Your task to perform on an android device: add a contact Image 0: 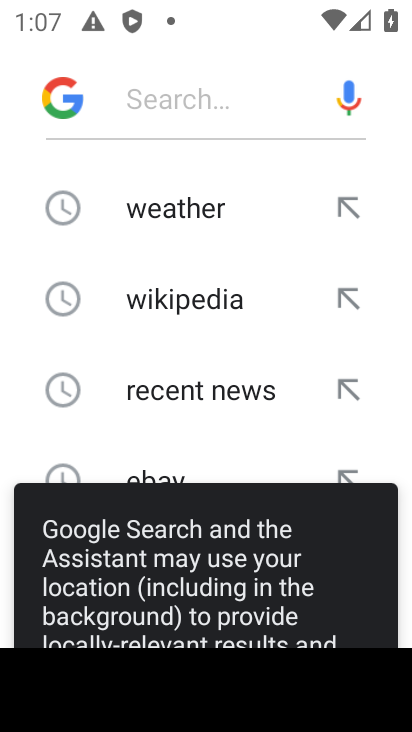
Step 0: press home button
Your task to perform on an android device: add a contact Image 1: 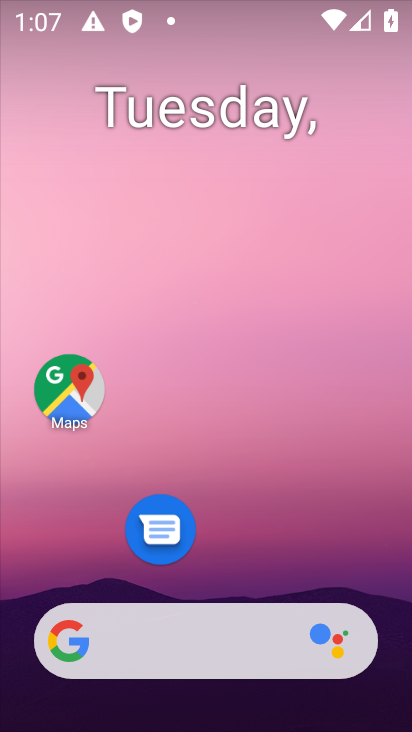
Step 1: drag from (247, 597) to (247, 82)
Your task to perform on an android device: add a contact Image 2: 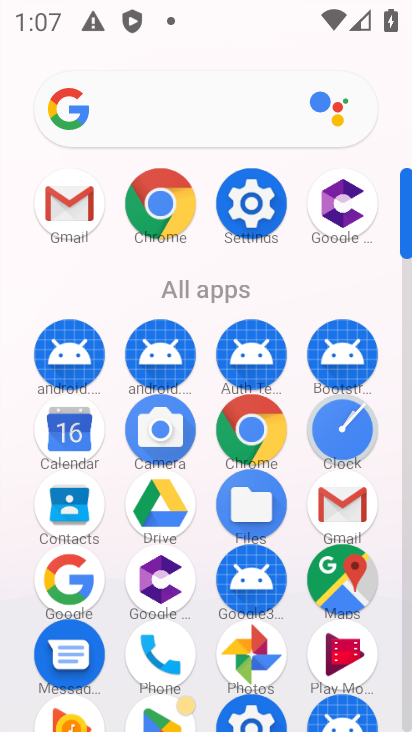
Step 2: click (259, 164)
Your task to perform on an android device: add a contact Image 3: 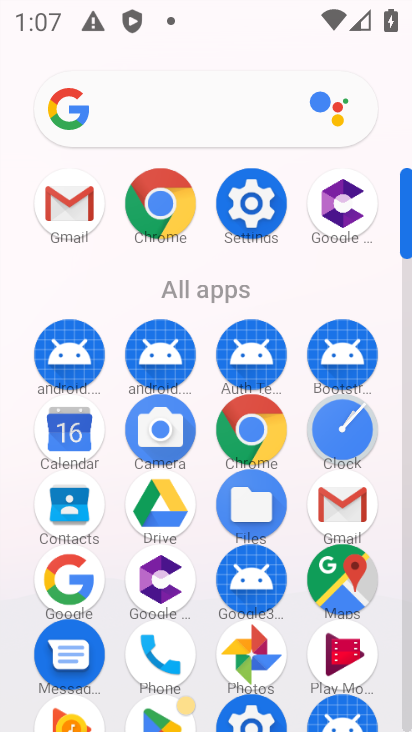
Step 3: click (220, 208)
Your task to perform on an android device: add a contact Image 4: 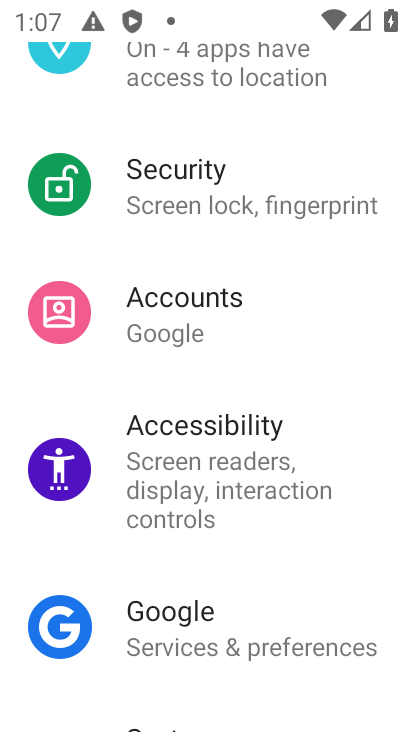
Step 4: press home button
Your task to perform on an android device: add a contact Image 5: 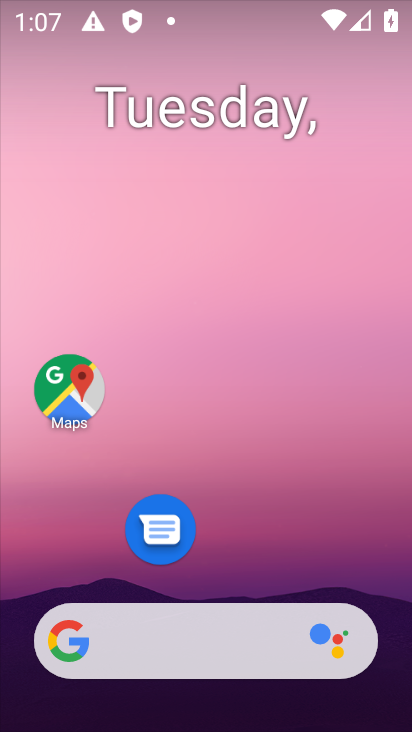
Step 5: drag from (267, 563) to (296, 142)
Your task to perform on an android device: add a contact Image 6: 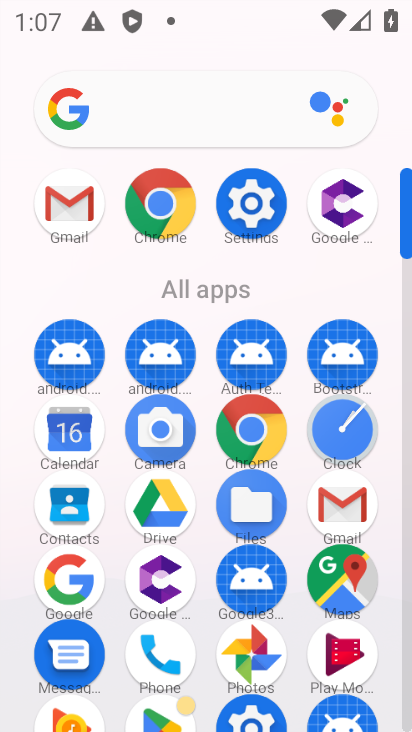
Step 6: click (88, 515)
Your task to perform on an android device: add a contact Image 7: 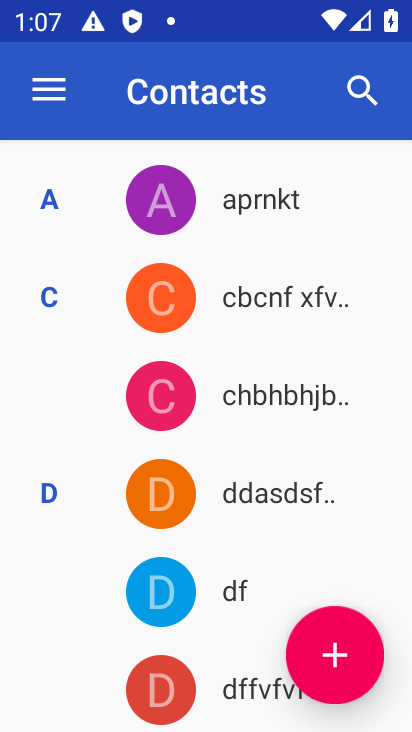
Step 7: click (333, 686)
Your task to perform on an android device: add a contact Image 8: 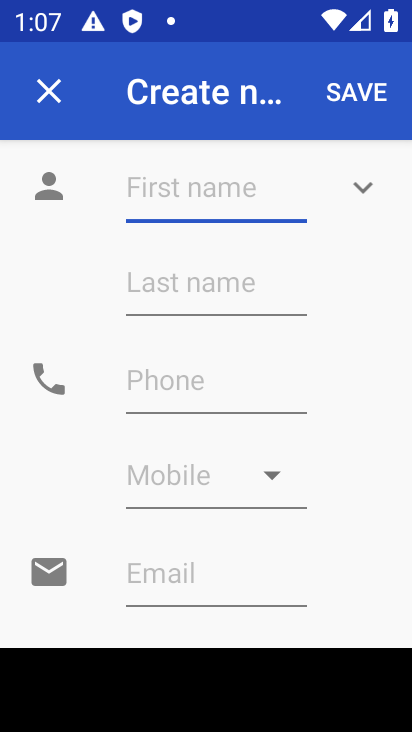
Step 8: type "adfs"
Your task to perform on an android device: add a contact Image 9: 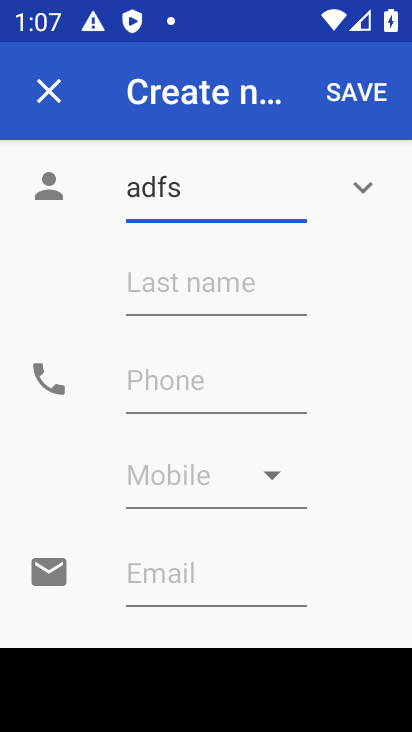
Step 9: click (251, 275)
Your task to perform on an android device: add a contact Image 10: 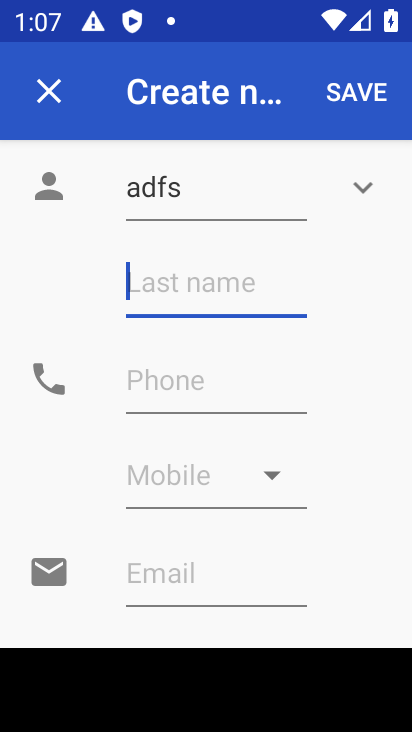
Step 10: click (226, 291)
Your task to perform on an android device: add a contact Image 11: 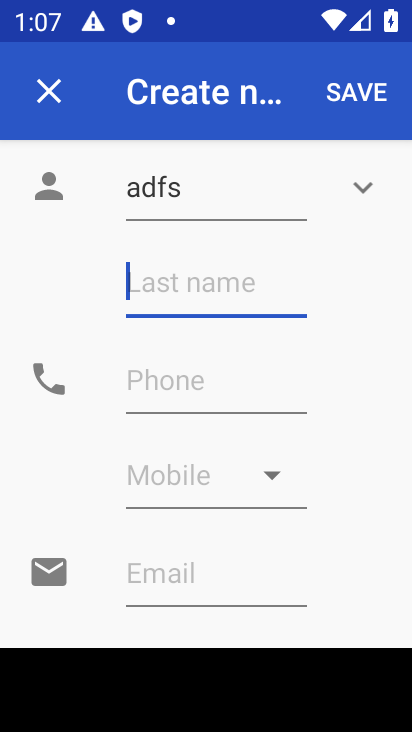
Step 11: type "sfssd"
Your task to perform on an android device: add a contact Image 12: 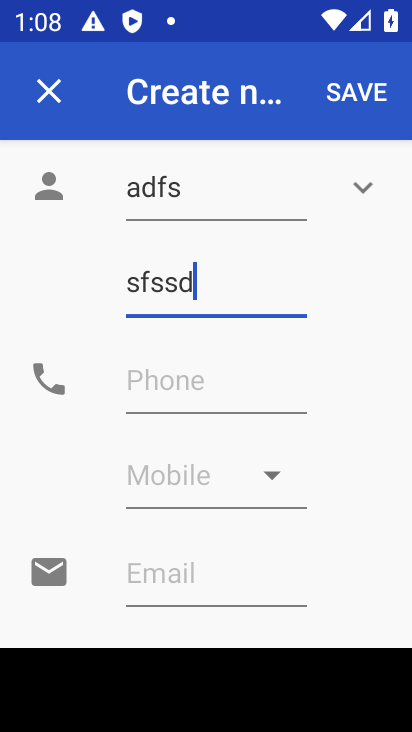
Step 12: click (287, 375)
Your task to perform on an android device: add a contact Image 13: 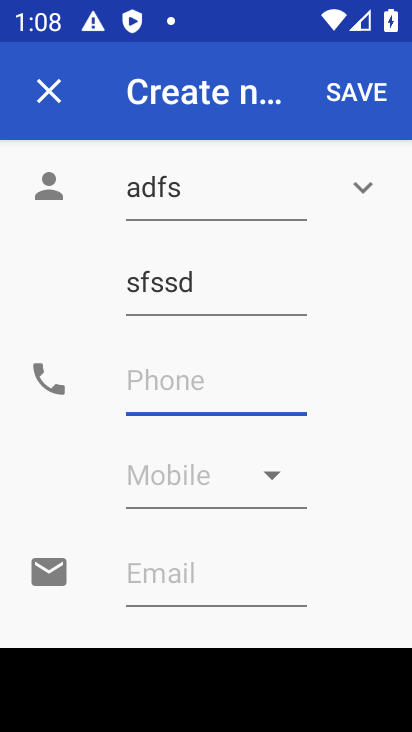
Step 13: type "213456789765432"
Your task to perform on an android device: add a contact Image 14: 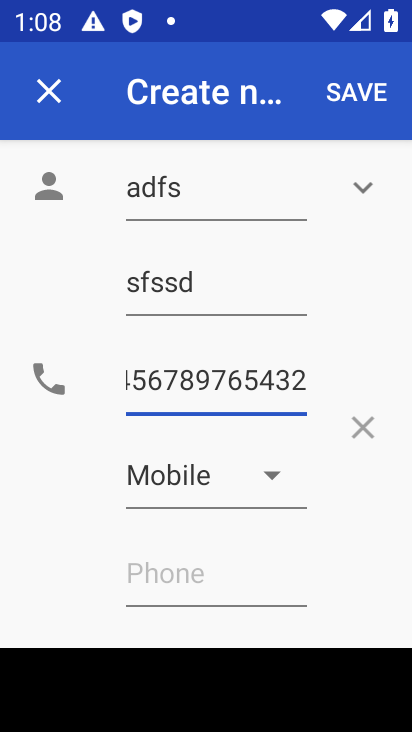
Step 14: click (362, 94)
Your task to perform on an android device: add a contact Image 15: 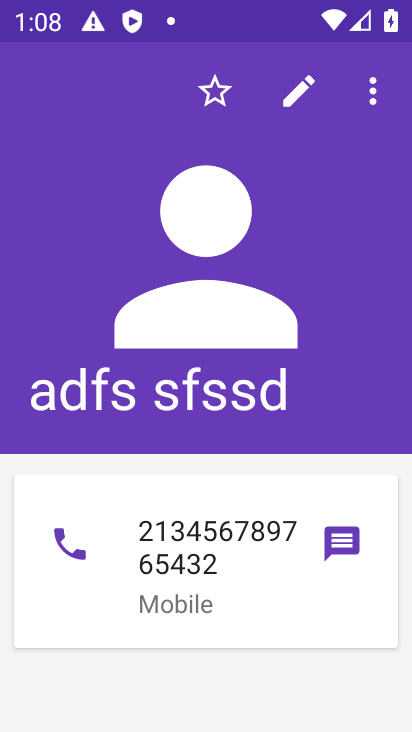
Step 15: task complete